Your task to perform on an android device: open app "Clock" (install if not already installed) Image 0: 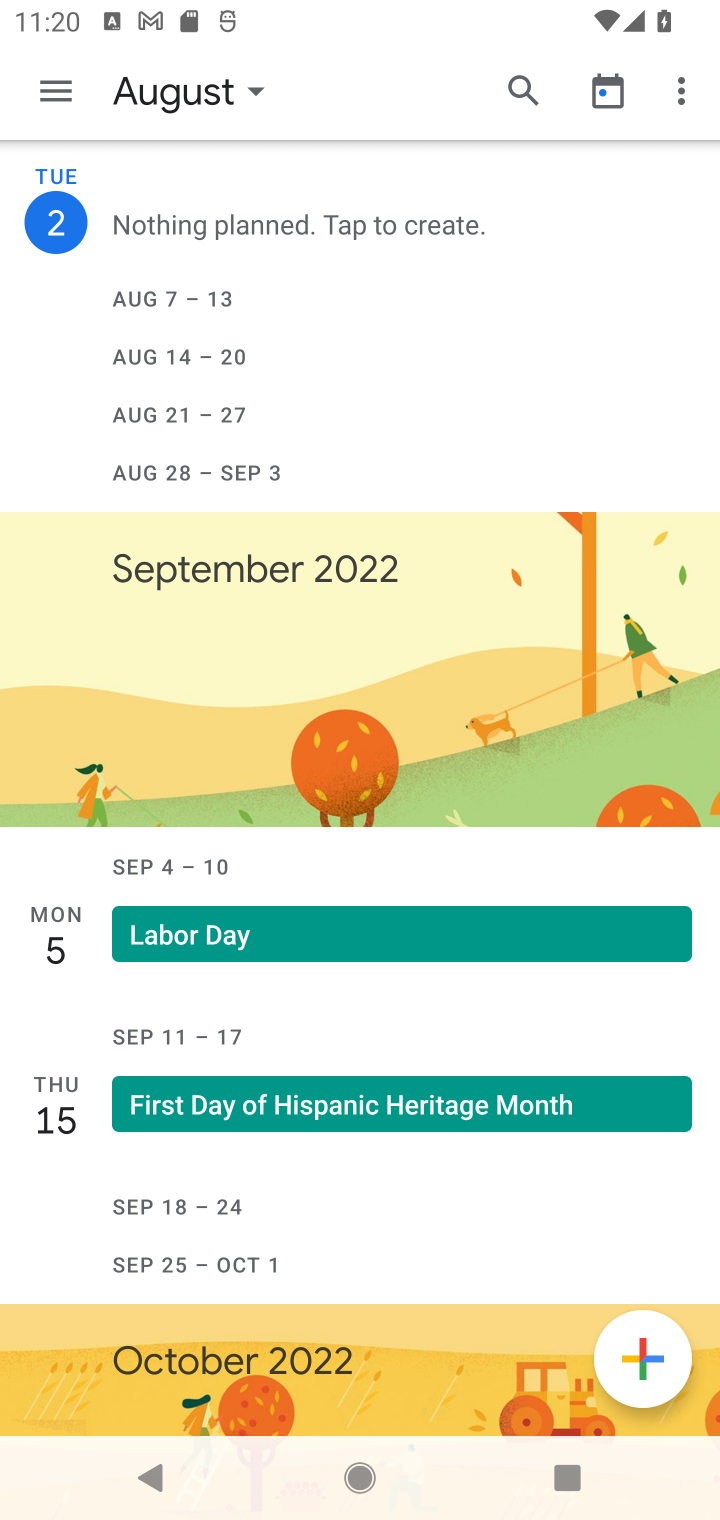
Step 0: press home button
Your task to perform on an android device: open app "Clock" (install if not already installed) Image 1: 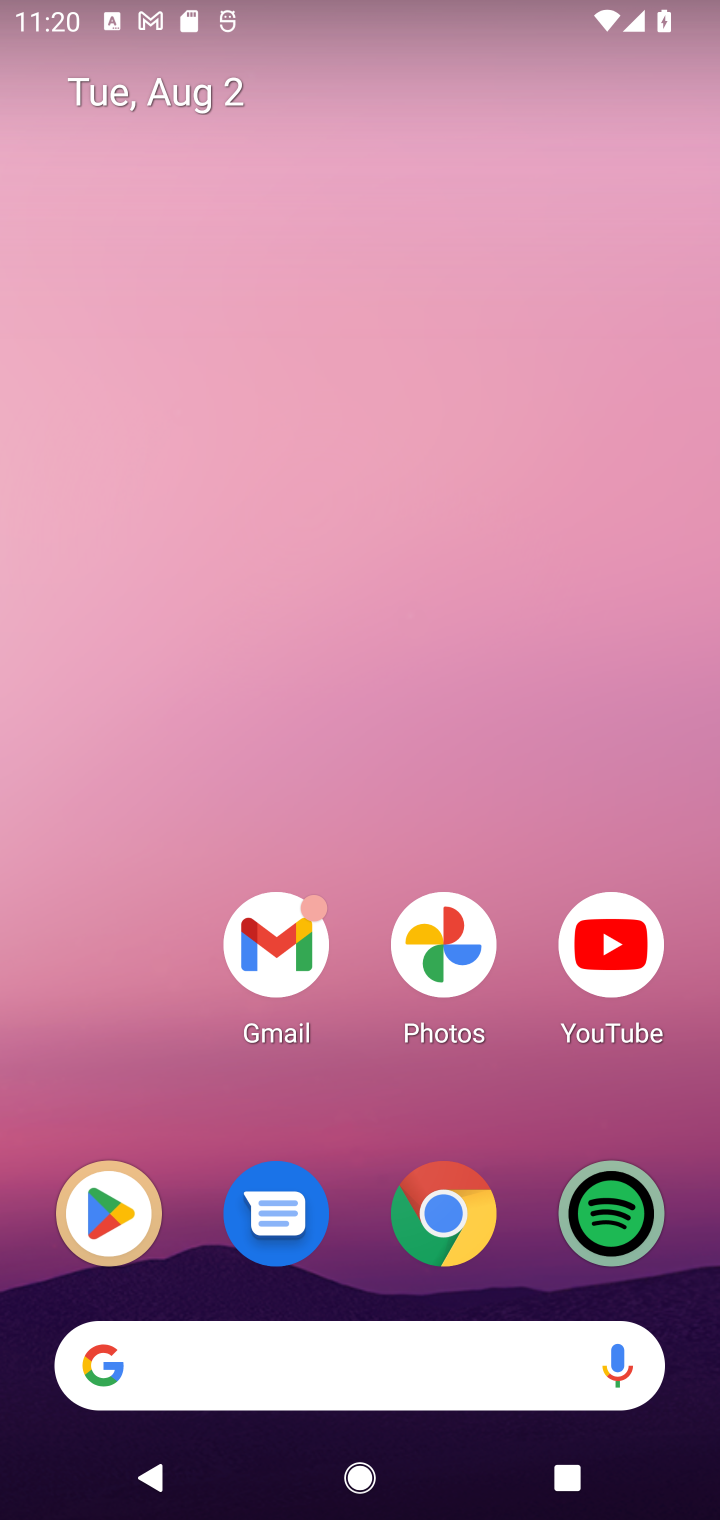
Step 1: click (109, 1212)
Your task to perform on an android device: open app "Clock" (install if not already installed) Image 2: 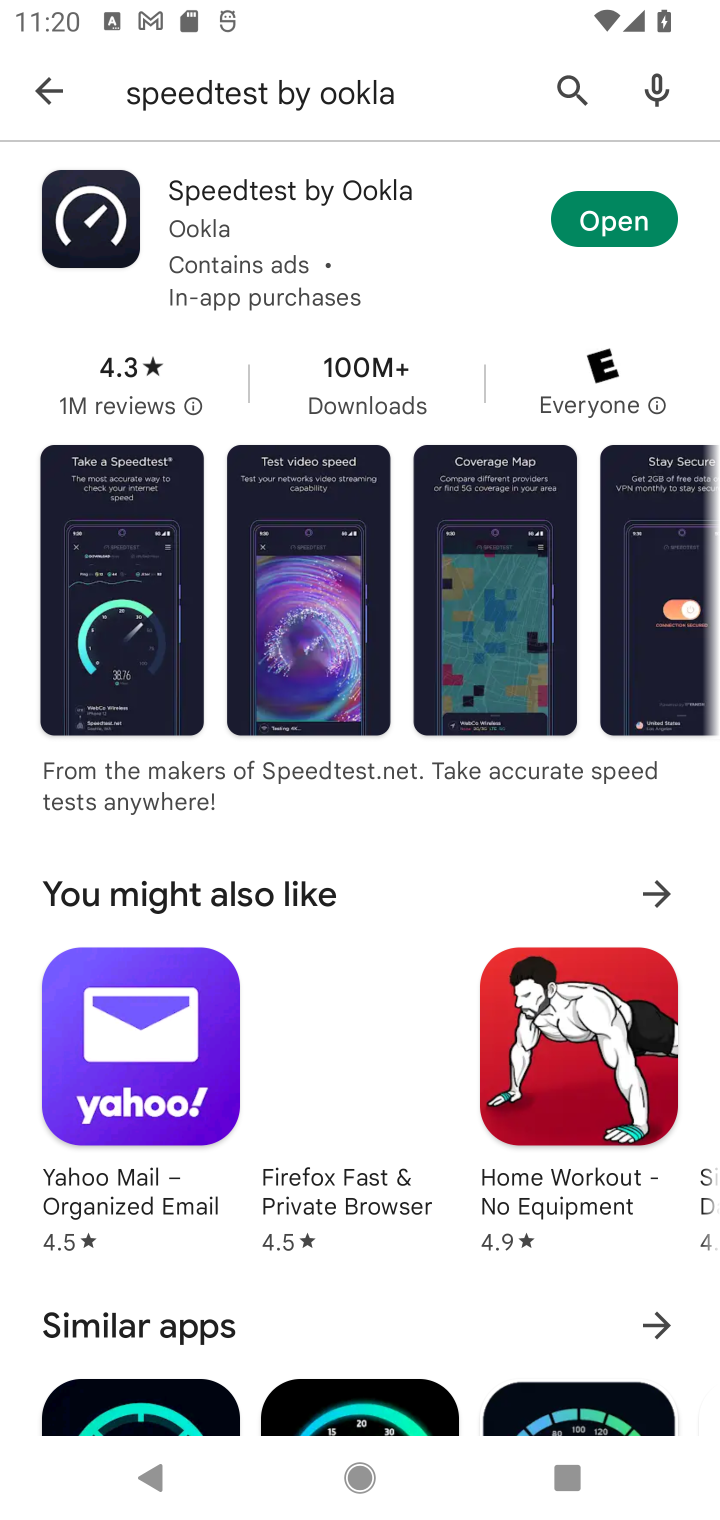
Step 2: click (54, 88)
Your task to perform on an android device: open app "Clock" (install if not already installed) Image 3: 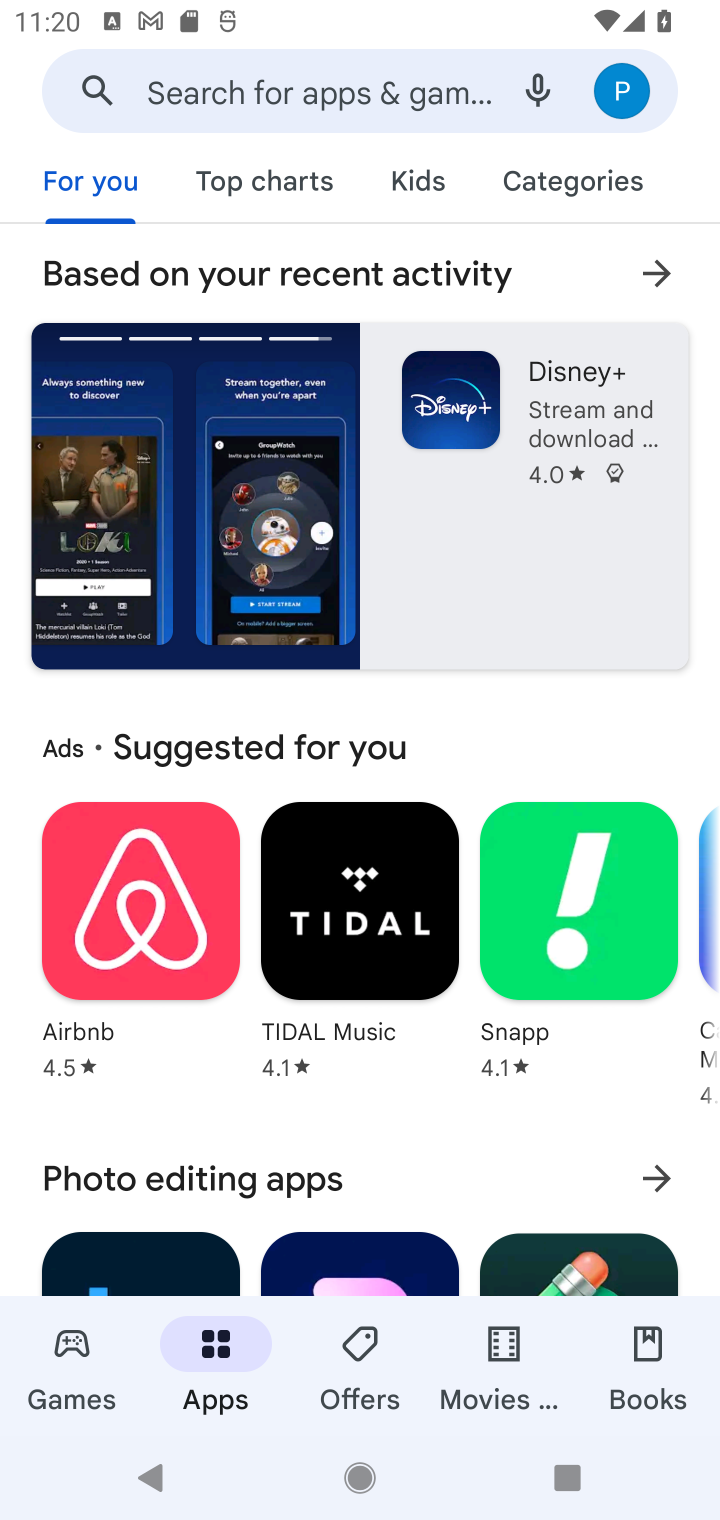
Step 3: click (272, 97)
Your task to perform on an android device: open app "Clock" (install if not already installed) Image 4: 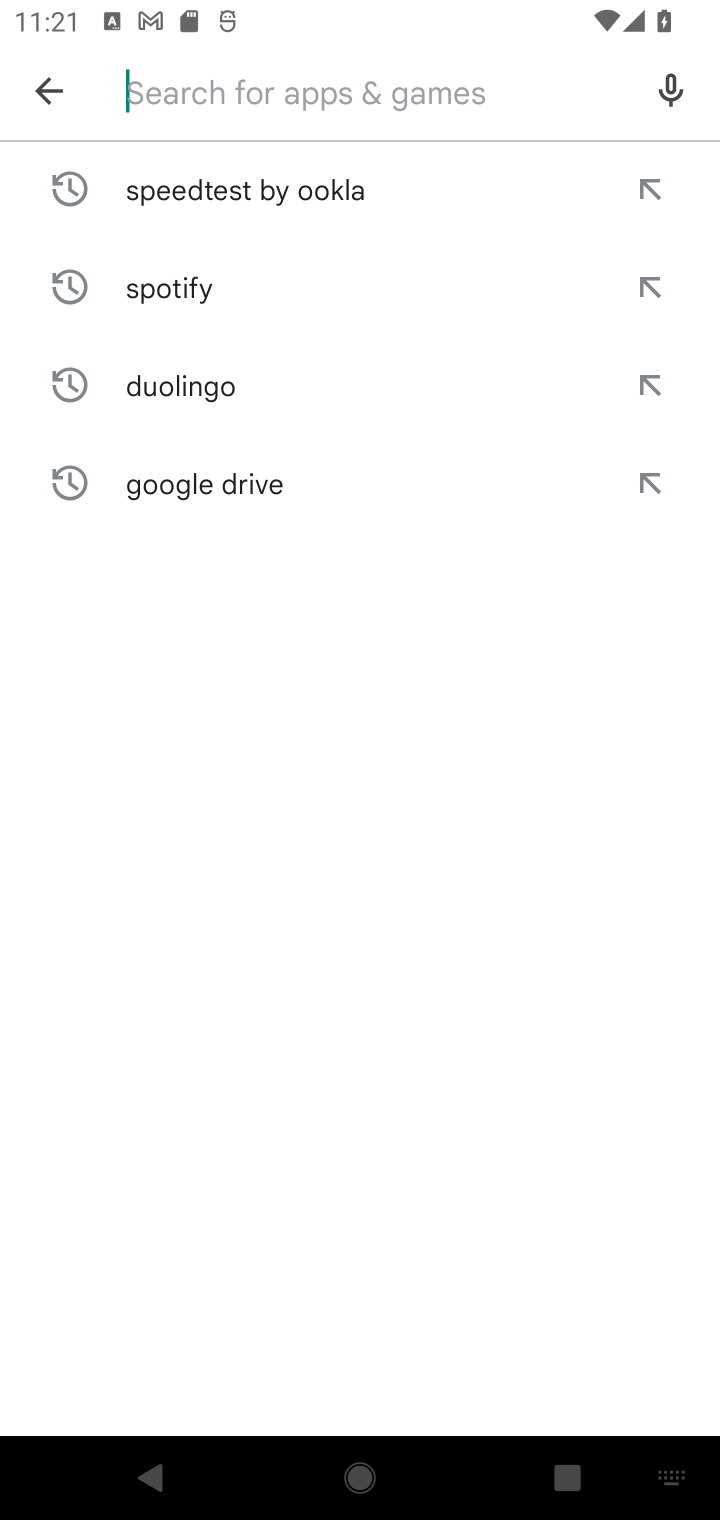
Step 4: type "Clock"
Your task to perform on an android device: open app "Clock" (install if not already installed) Image 5: 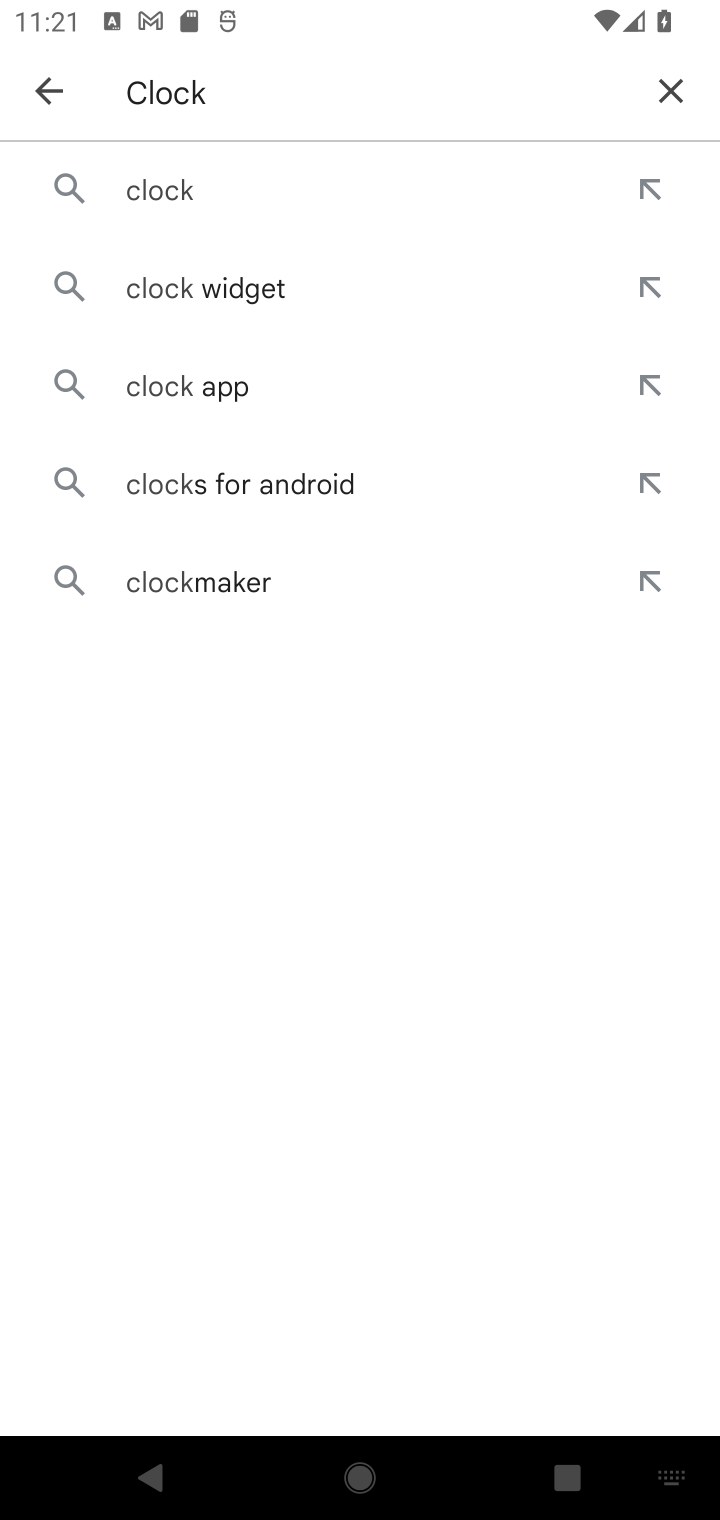
Step 5: click (180, 189)
Your task to perform on an android device: open app "Clock" (install if not already installed) Image 6: 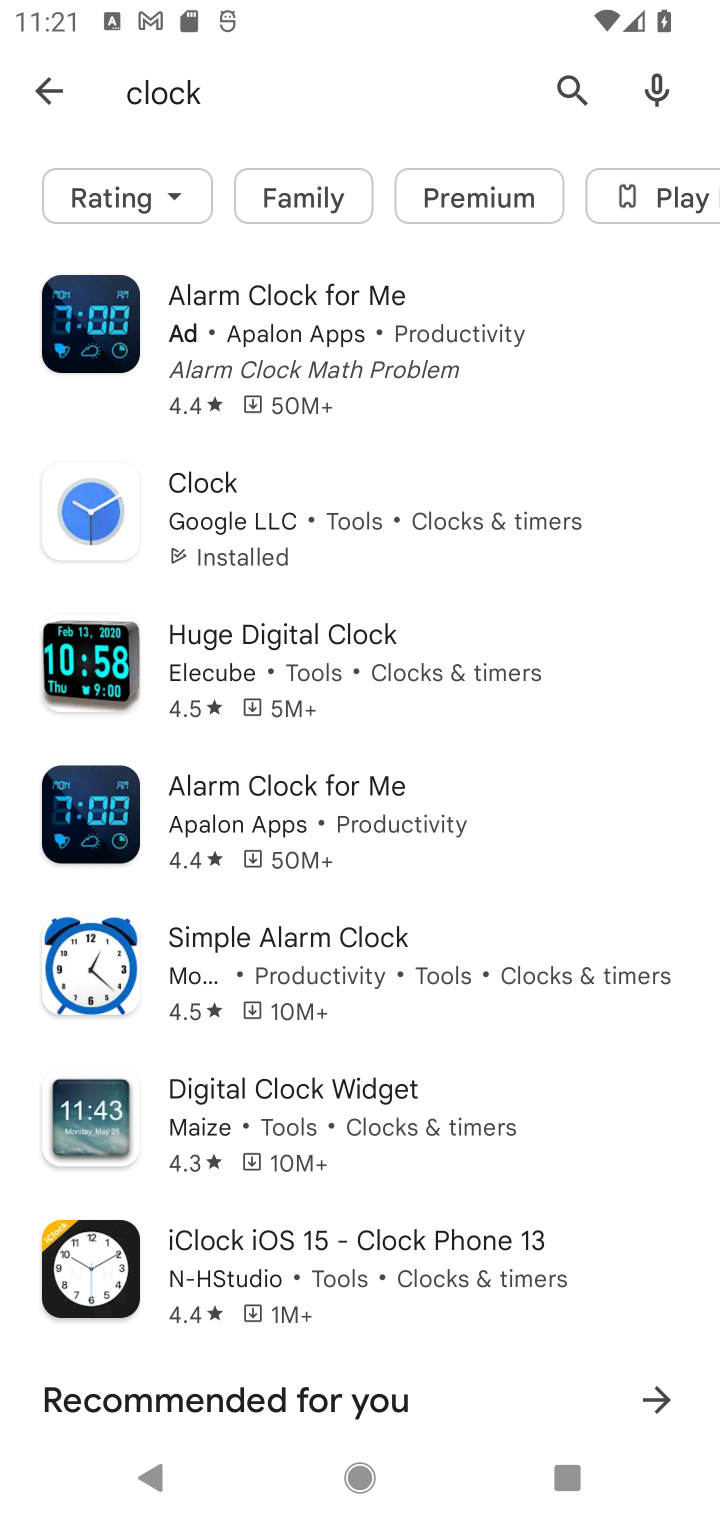
Step 6: click (220, 499)
Your task to perform on an android device: open app "Clock" (install if not already installed) Image 7: 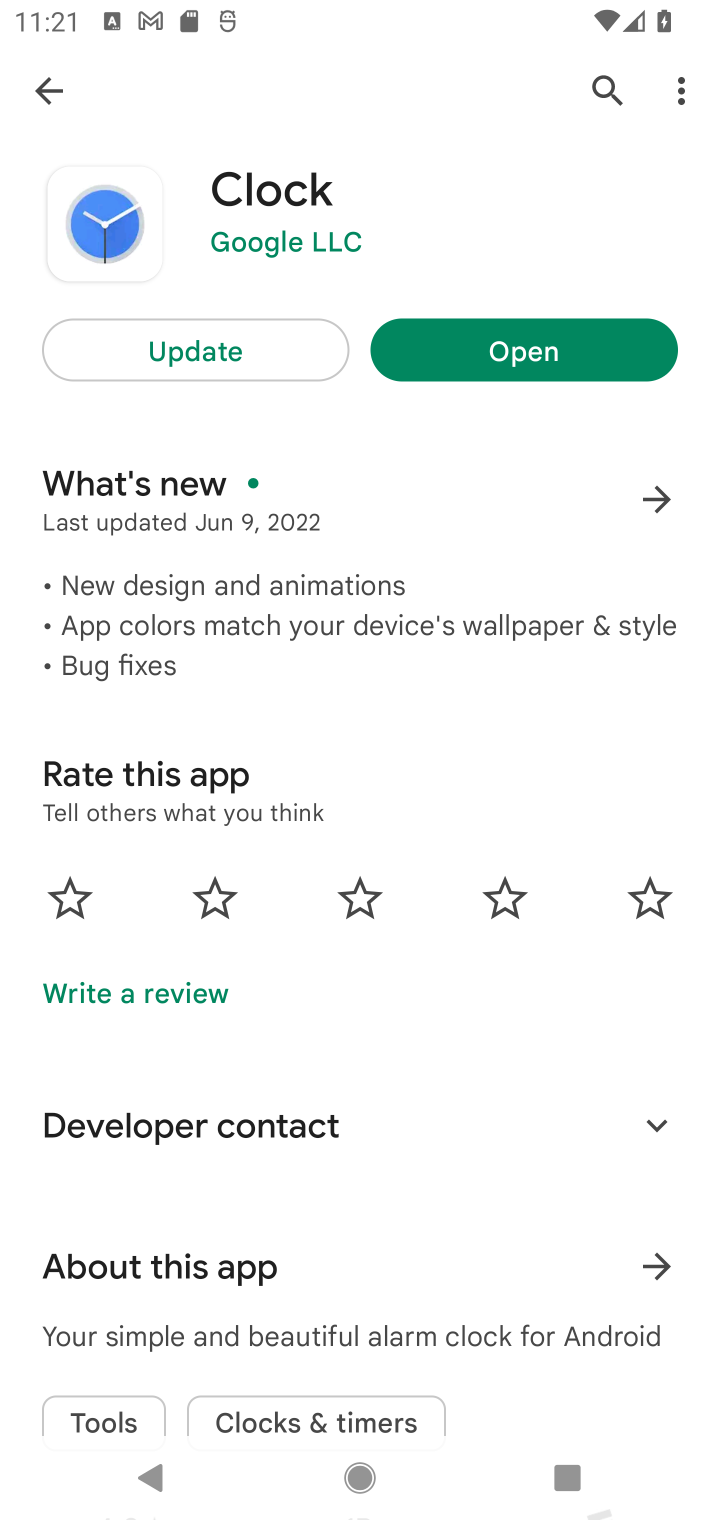
Step 7: click (471, 349)
Your task to perform on an android device: open app "Clock" (install if not already installed) Image 8: 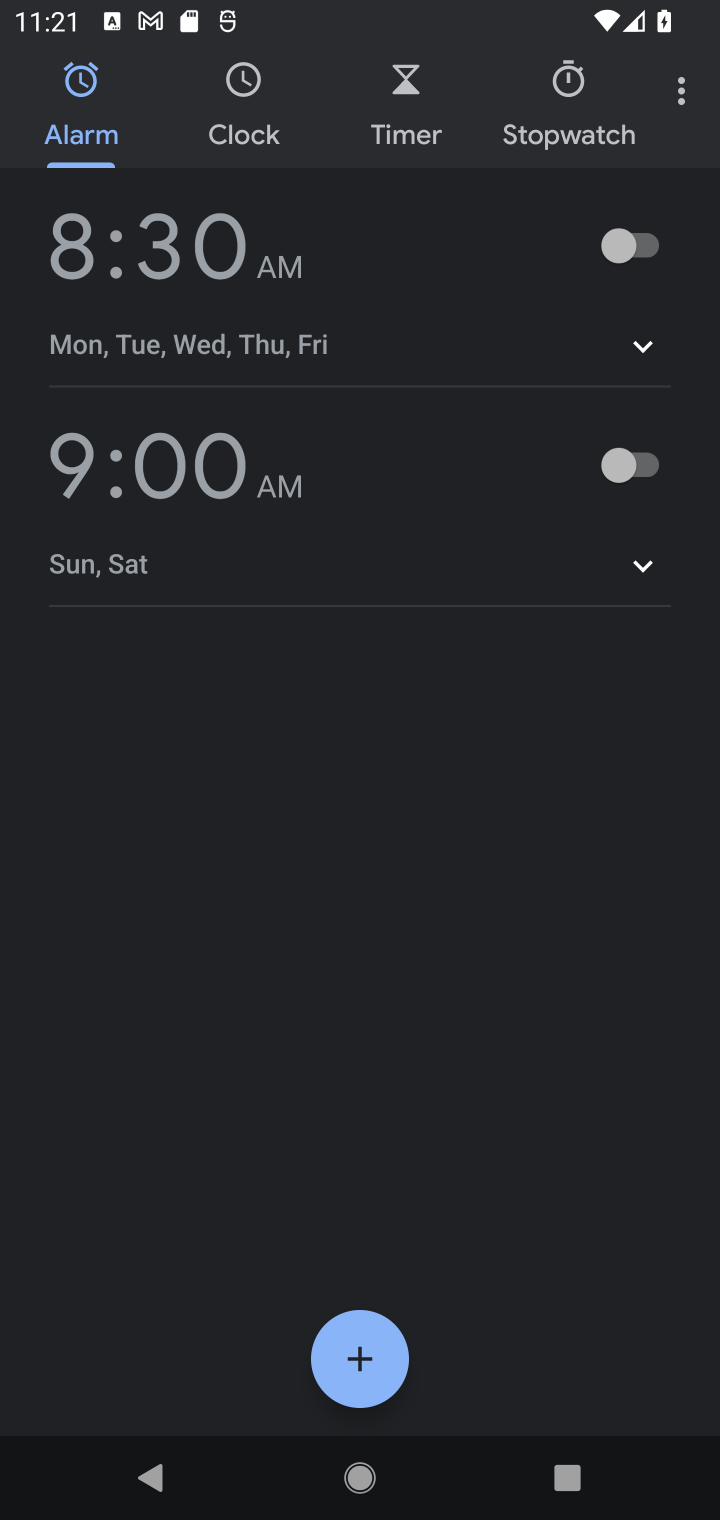
Step 8: task complete